Your task to perform on an android device: Go to Maps Image 0: 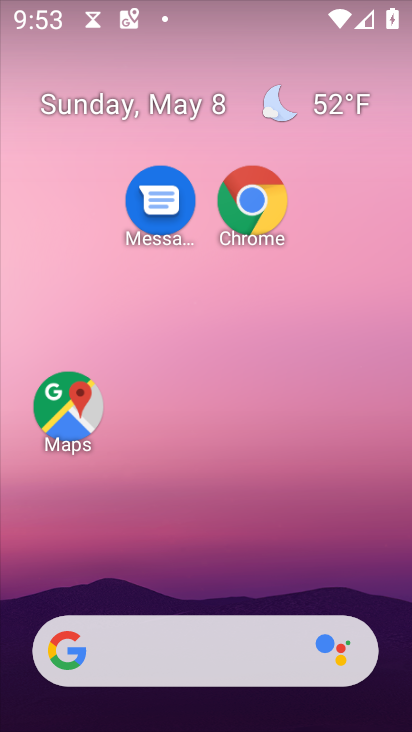
Step 0: click (26, 380)
Your task to perform on an android device: Go to Maps Image 1: 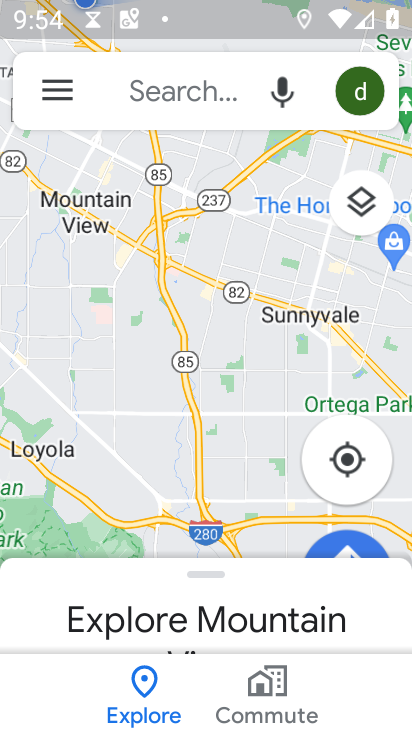
Step 1: task complete